Your task to perform on an android device: remove spam from my inbox in the gmail app Image 0: 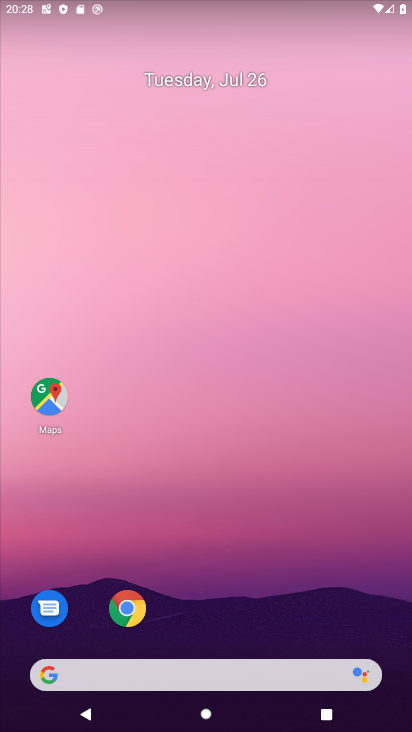
Step 0: drag from (41, 678) to (254, 31)
Your task to perform on an android device: remove spam from my inbox in the gmail app Image 1: 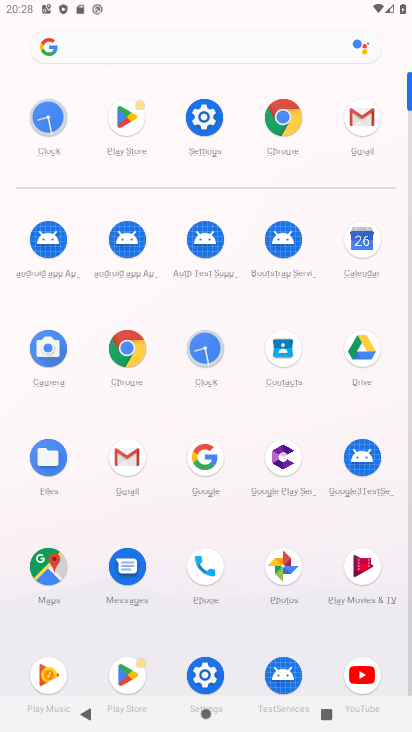
Step 1: click (122, 462)
Your task to perform on an android device: remove spam from my inbox in the gmail app Image 2: 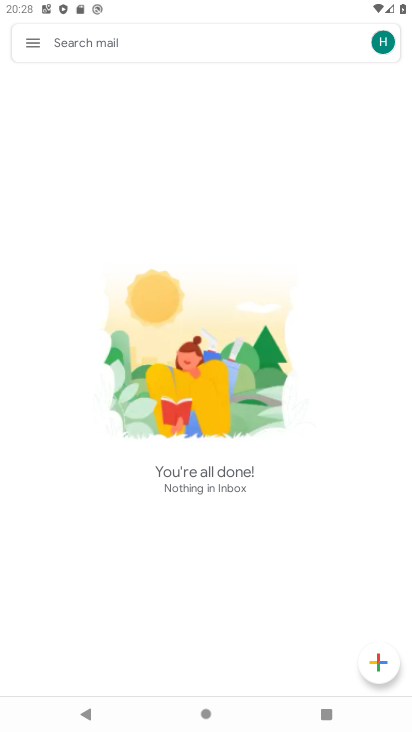
Step 2: click (31, 46)
Your task to perform on an android device: remove spam from my inbox in the gmail app Image 3: 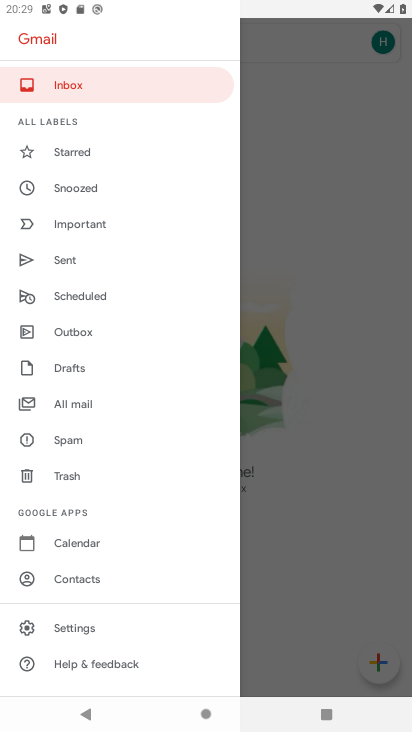
Step 3: click (66, 433)
Your task to perform on an android device: remove spam from my inbox in the gmail app Image 4: 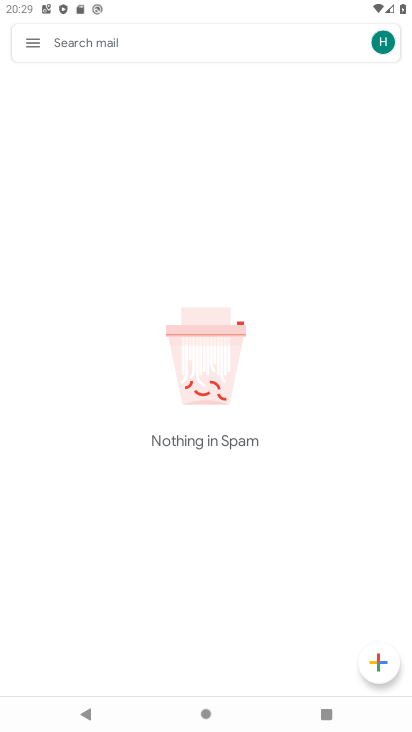
Step 4: task complete